Your task to perform on an android device: check data usage Image 0: 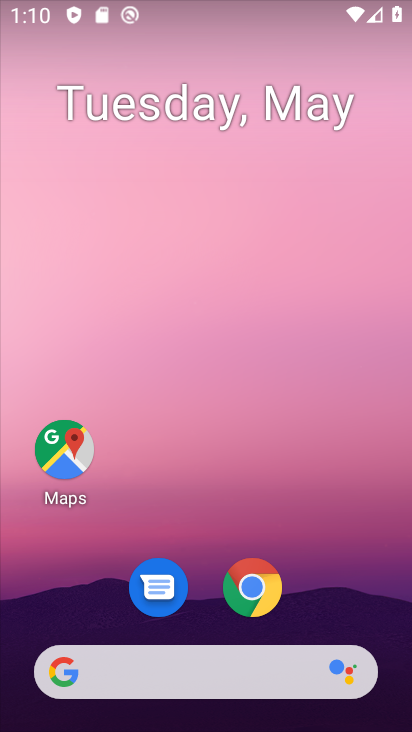
Step 0: drag from (231, 617) to (320, 142)
Your task to perform on an android device: check data usage Image 1: 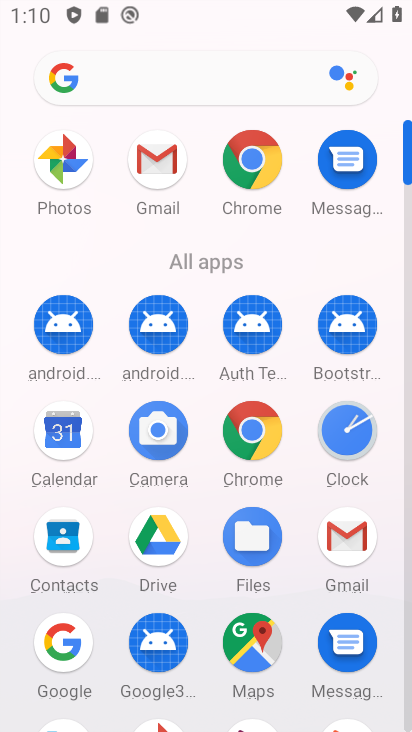
Step 1: drag from (197, 581) to (207, 85)
Your task to perform on an android device: check data usage Image 2: 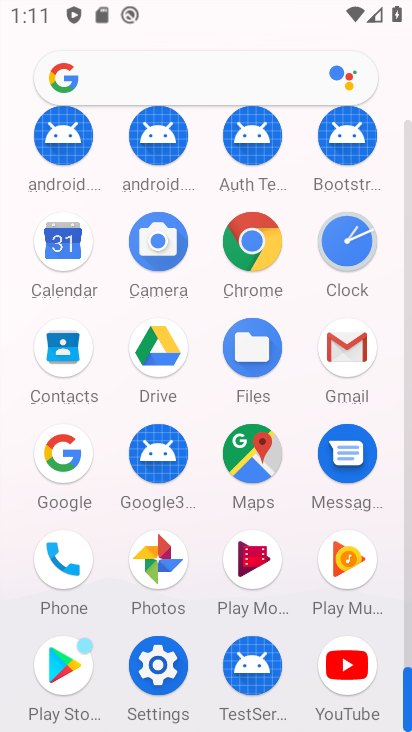
Step 2: click (156, 659)
Your task to perform on an android device: check data usage Image 3: 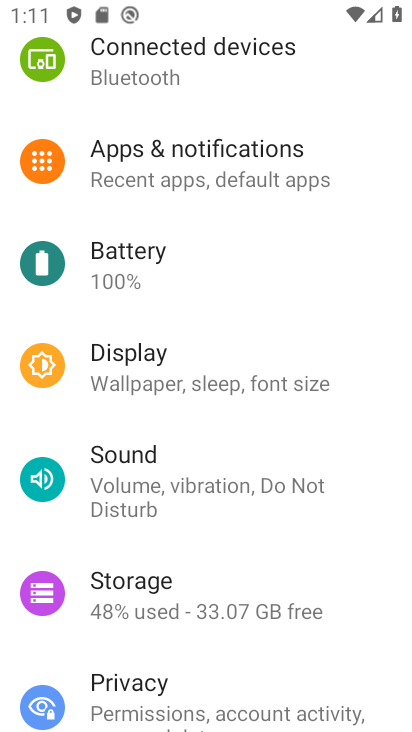
Step 3: drag from (234, 231) to (342, 726)
Your task to perform on an android device: check data usage Image 4: 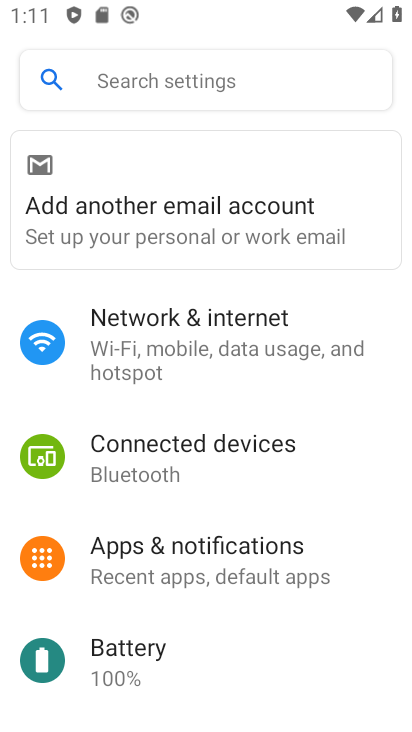
Step 4: click (207, 362)
Your task to perform on an android device: check data usage Image 5: 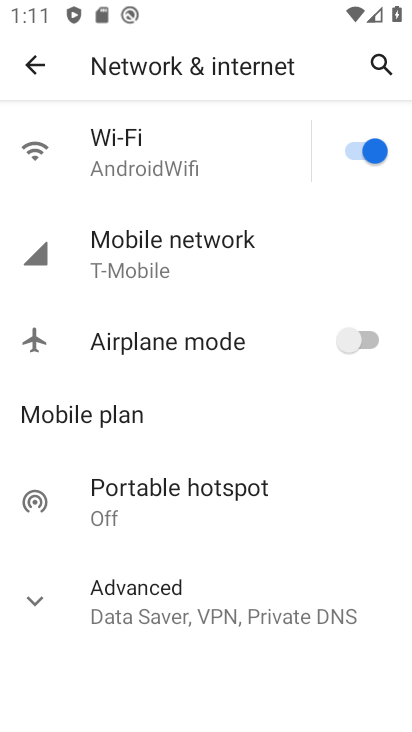
Step 5: click (162, 247)
Your task to perform on an android device: check data usage Image 6: 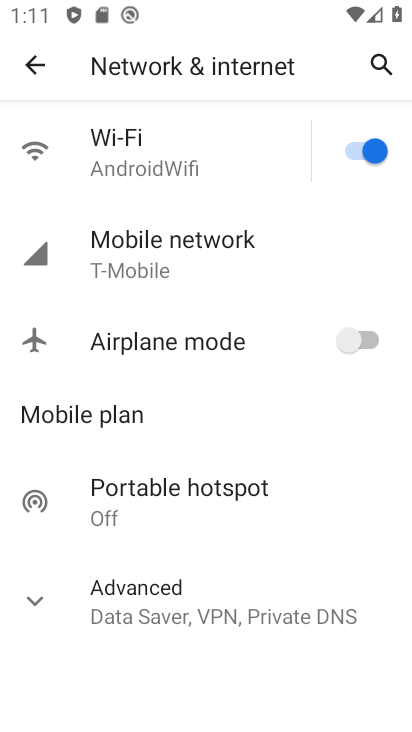
Step 6: task complete